Your task to perform on an android device: Go to calendar. Show me events next week Image 0: 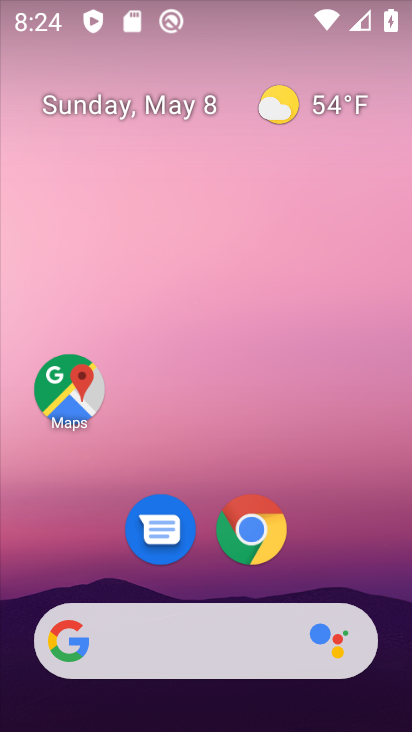
Step 0: drag from (383, 558) to (369, 52)
Your task to perform on an android device: Go to calendar. Show me events next week Image 1: 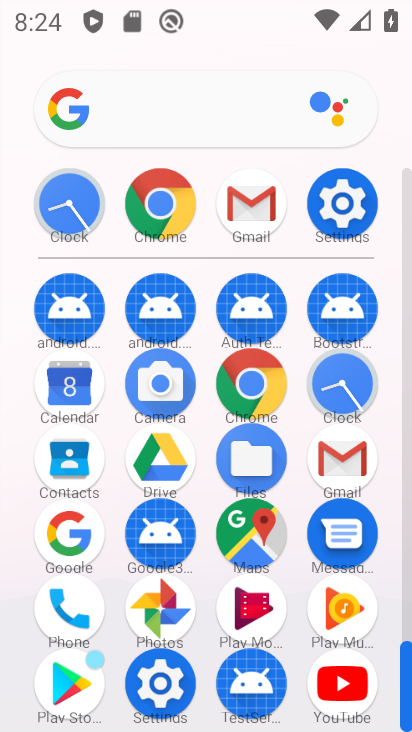
Step 1: click (78, 385)
Your task to perform on an android device: Go to calendar. Show me events next week Image 2: 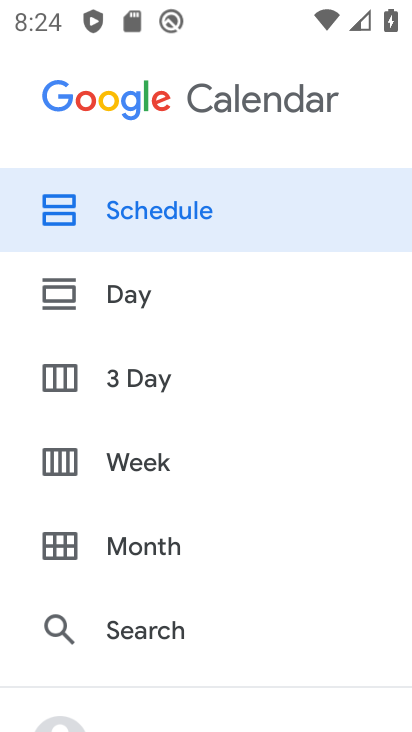
Step 2: press back button
Your task to perform on an android device: Go to calendar. Show me events next week Image 3: 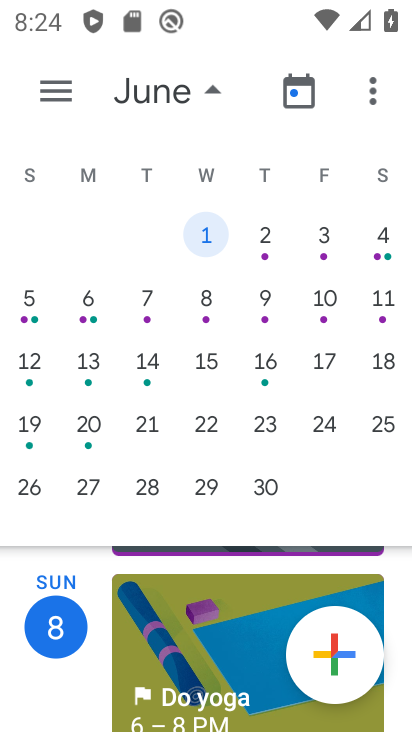
Step 3: drag from (111, 256) to (398, 269)
Your task to perform on an android device: Go to calendar. Show me events next week Image 4: 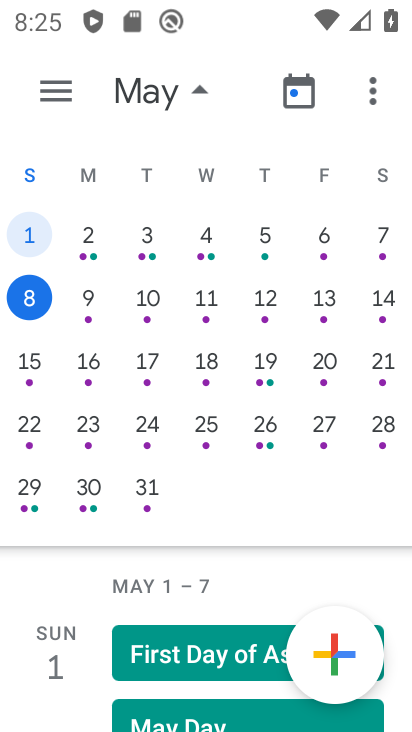
Step 4: click (28, 372)
Your task to perform on an android device: Go to calendar. Show me events next week Image 5: 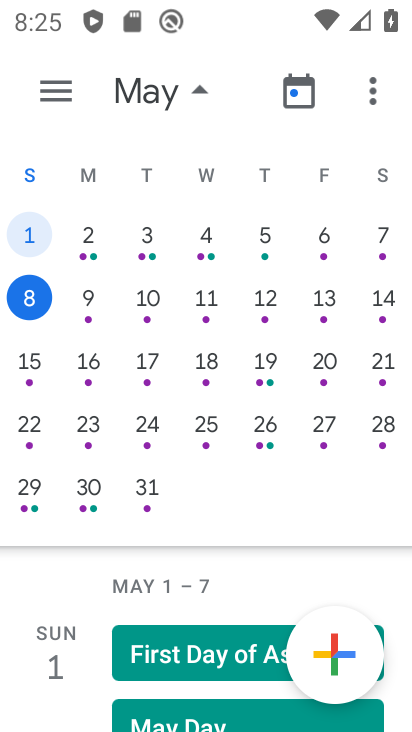
Step 5: click (35, 361)
Your task to perform on an android device: Go to calendar. Show me events next week Image 6: 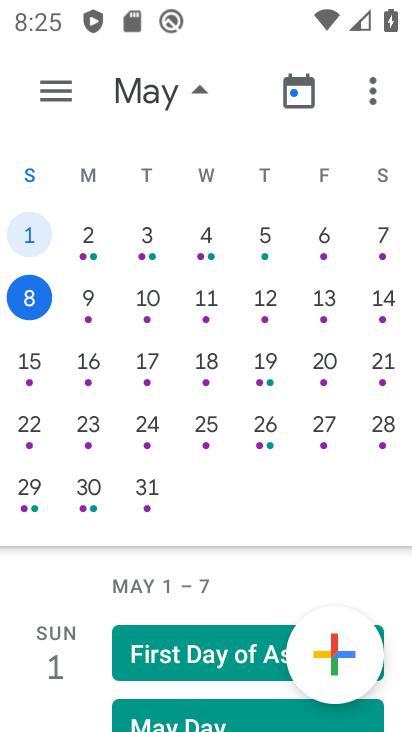
Step 6: click (36, 369)
Your task to perform on an android device: Go to calendar. Show me events next week Image 7: 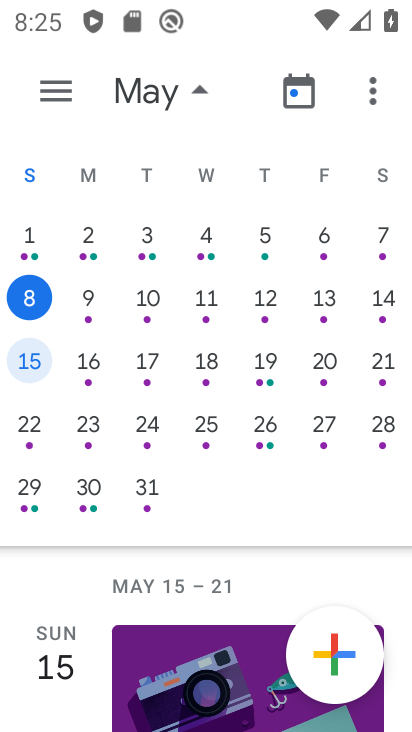
Step 7: click (36, 369)
Your task to perform on an android device: Go to calendar. Show me events next week Image 8: 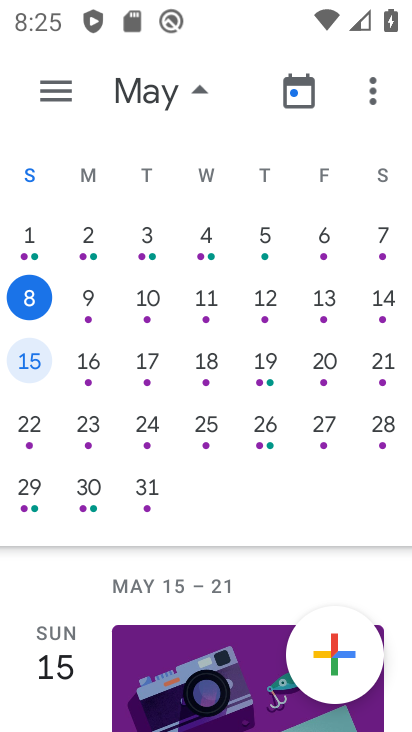
Step 8: task complete